Your task to perform on an android device: Open wifi settings Image 0: 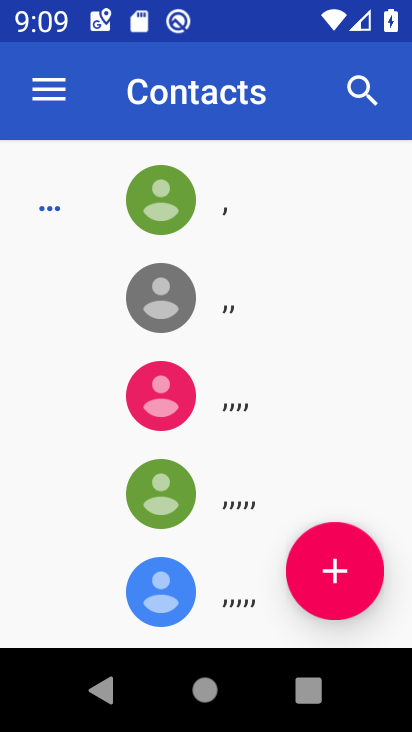
Step 0: press home button
Your task to perform on an android device: Open wifi settings Image 1: 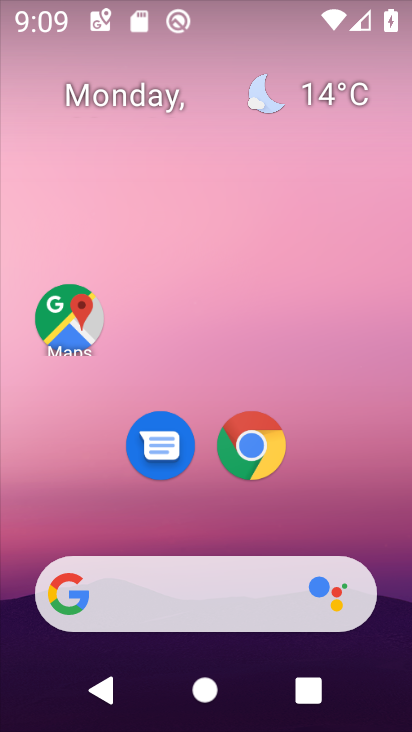
Step 1: drag from (198, 535) to (217, 25)
Your task to perform on an android device: Open wifi settings Image 2: 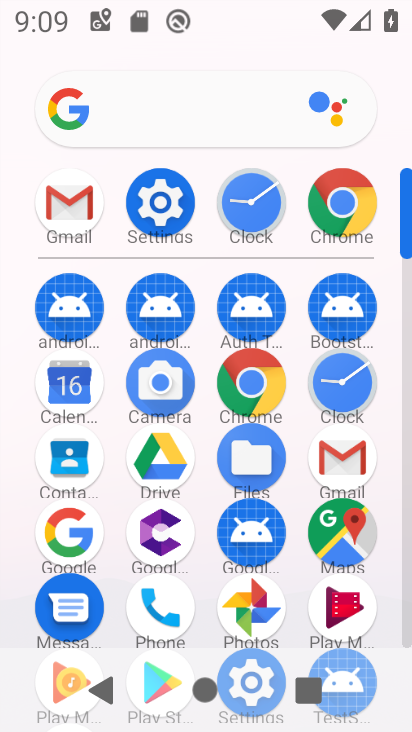
Step 2: drag from (213, 8) to (217, 430)
Your task to perform on an android device: Open wifi settings Image 3: 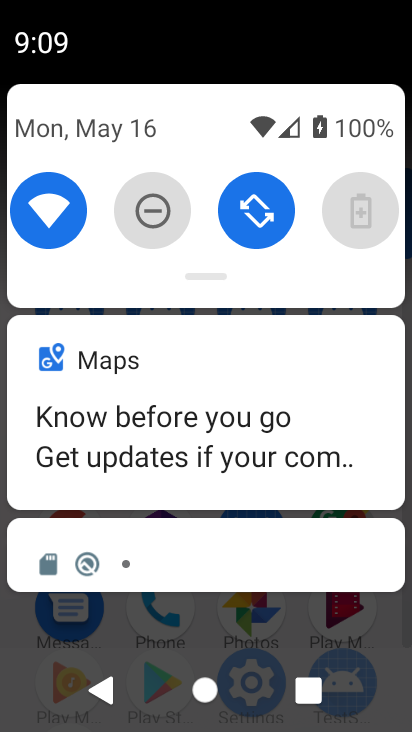
Step 3: click (199, 621)
Your task to perform on an android device: Open wifi settings Image 4: 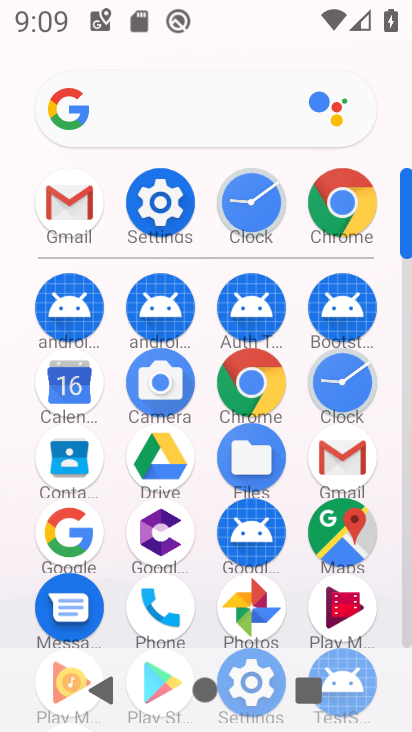
Step 4: click (159, 193)
Your task to perform on an android device: Open wifi settings Image 5: 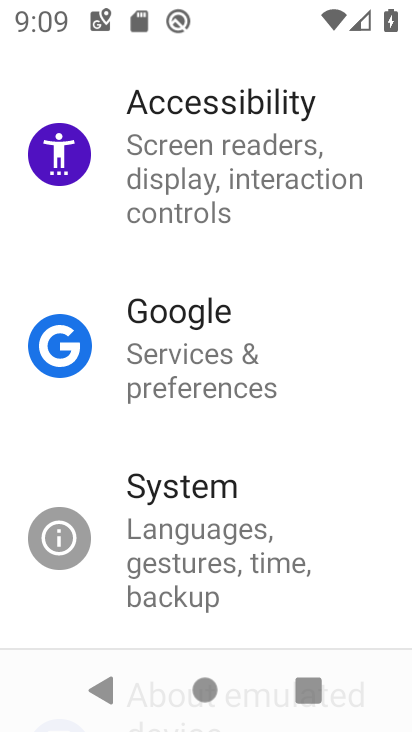
Step 5: drag from (194, 119) to (175, 647)
Your task to perform on an android device: Open wifi settings Image 6: 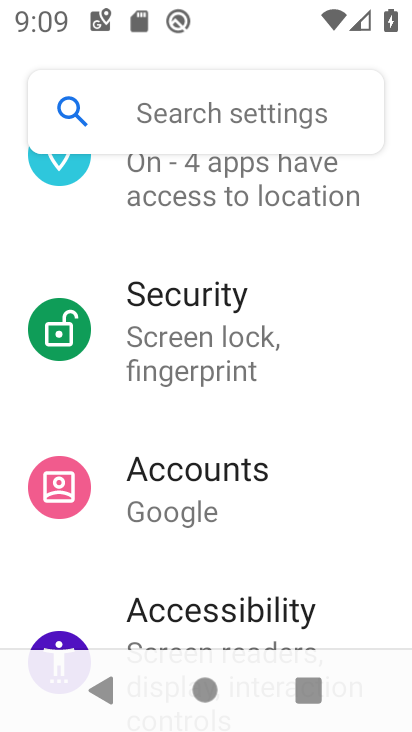
Step 6: drag from (173, 177) to (169, 679)
Your task to perform on an android device: Open wifi settings Image 7: 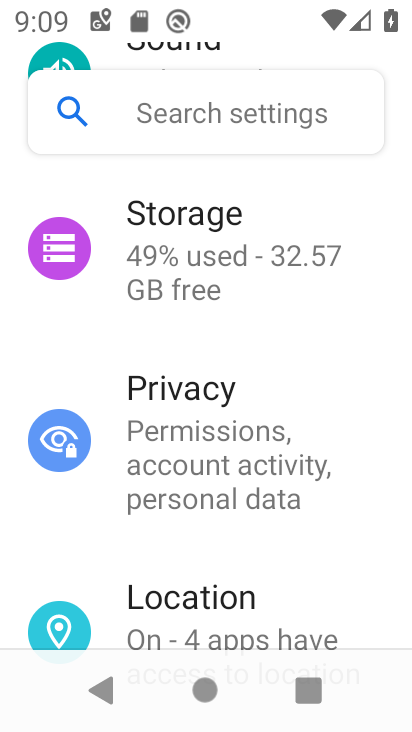
Step 7: drag from (179, 180) to (182, 613)
Your task to perform on an android device: Open wifi settings Image 8: 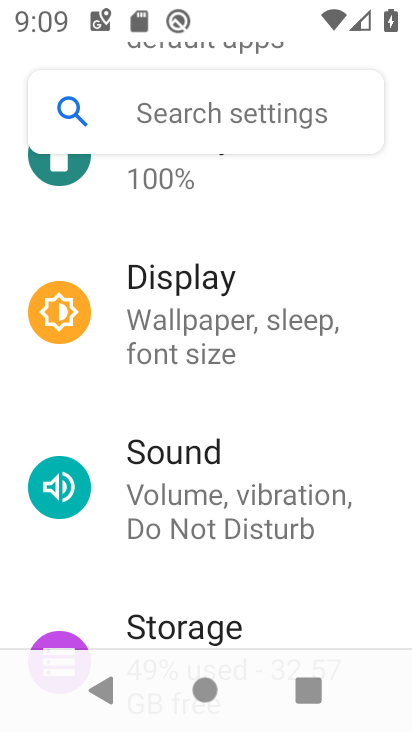
Step 8: drag from (156, 179) to (159, 622)
Your task to perform on an android device: Open wifi settings Image 9: 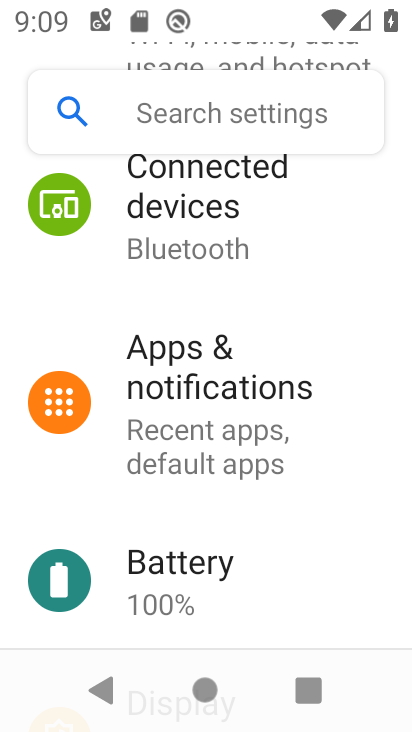
Step 9: drag from (121, 172) to (106, 600)
Your task to perform on an android device: Open wifi settings Image 10: 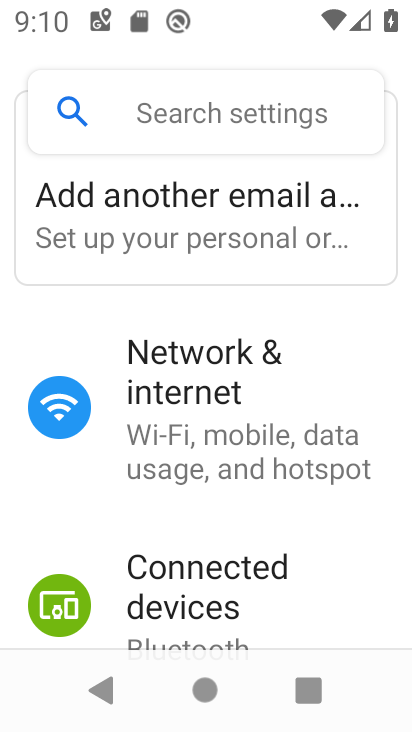
Step 10: click (100, 370)
Your task to perform on an android device: Open wifi settings Image 11: 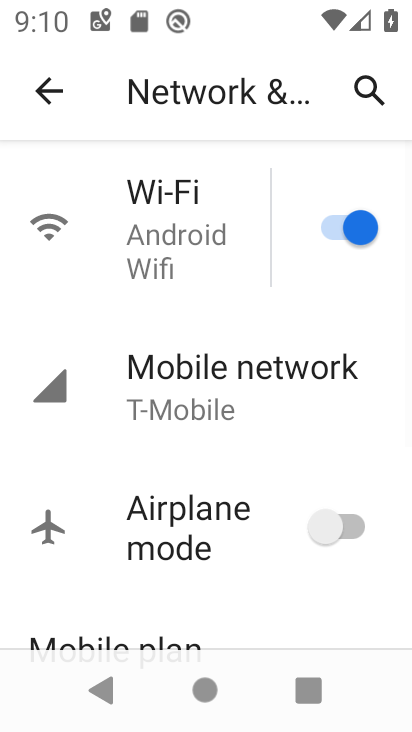
Step 11: click (207, 226)
Your task to perform on an android device: Open wifi settings Image 12: 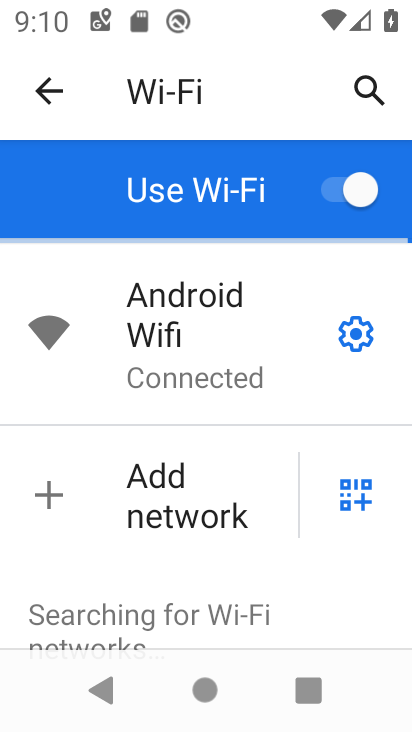
Step 12: task complete